Your task to perform on an android device: turn off translation in the chrome app Image 0: 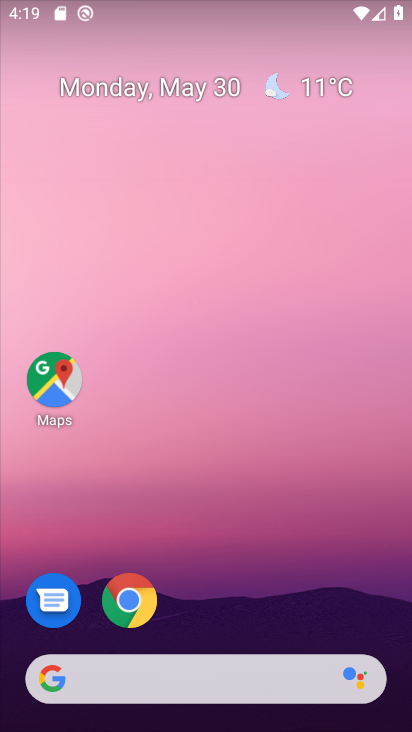
Step 0: drag from (300, 576) to (238, 1)
Your task to perform on an android device: turn off translation in the chrome app Image 1: 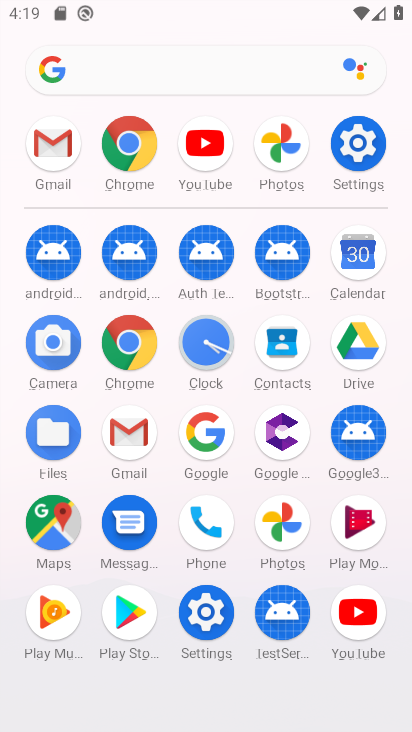
Step 1: click (133, 201)
Your task to perform on an android device: turn off translation in the chrome app Image 2: 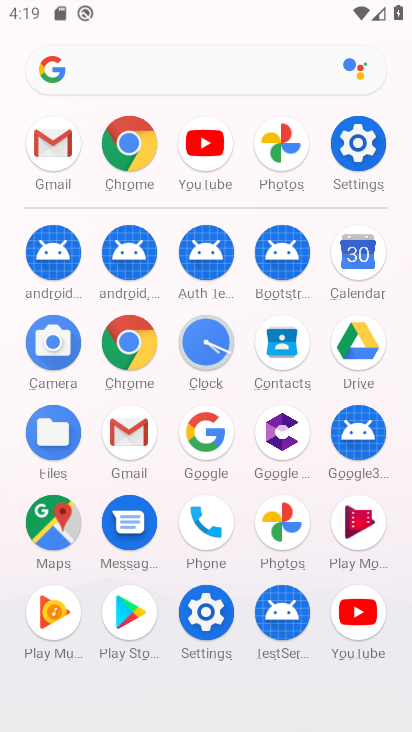
Step 2: click (127, 139)
Your task to perform on an android device: turn off translation in the chrome app Image 3: 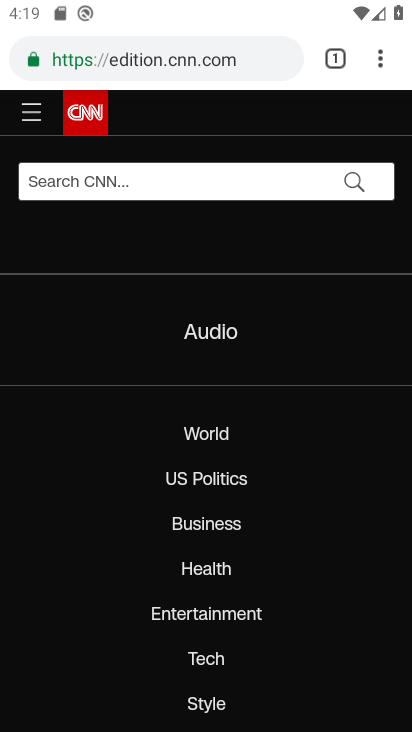
Step 3: drag from (391, 62) to (196, 634)
Your task to perform on an android device: turn off translation in the chrome app Image 4: 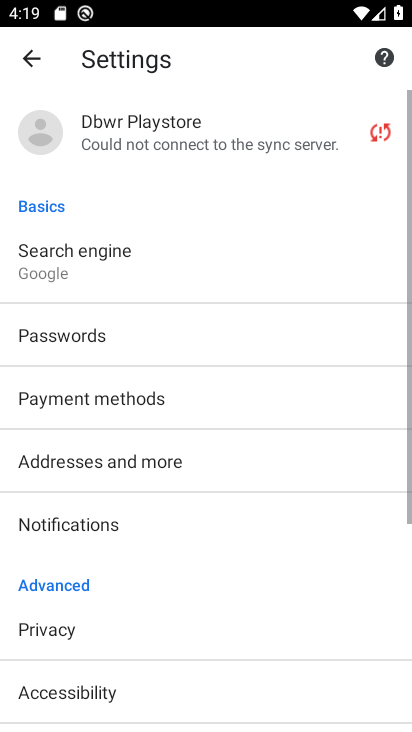
Step 4: drag from (196, 633) to (168, 238)
Your task to perform on an android device: turn off translation in the chrome app Image 5: 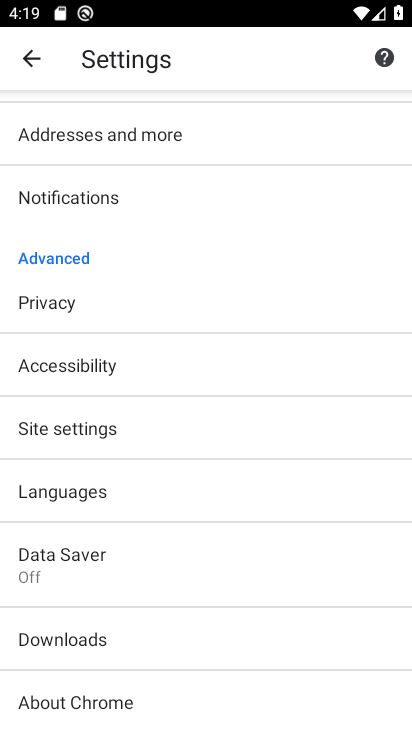
Step 5: click (120, 492)
Your task to perform on an android device: turn off translation in the chrome app Image 6: 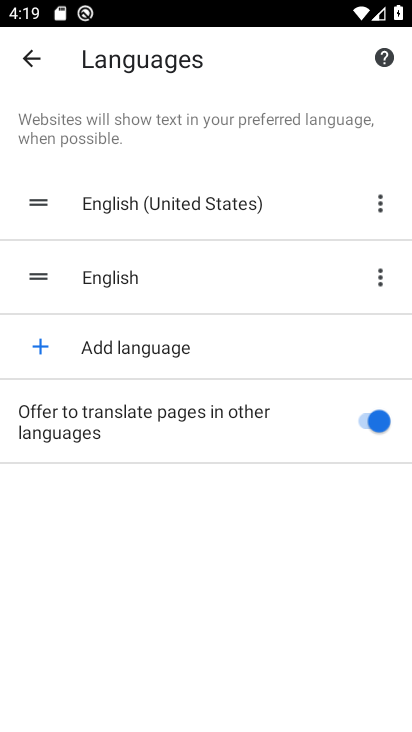
Step 6: click (367, 422)
Your task to perform on an android device: turn off translation in the chrome app Image 7: 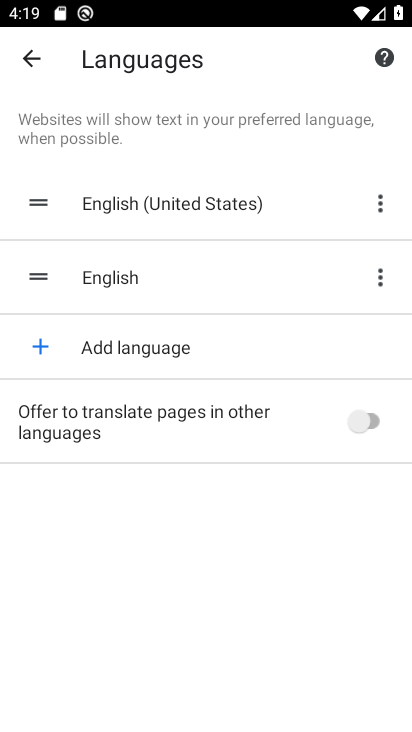
Step 7: task complete